Your task to perform on an android device: turn off translation in the chrome app Image 0: 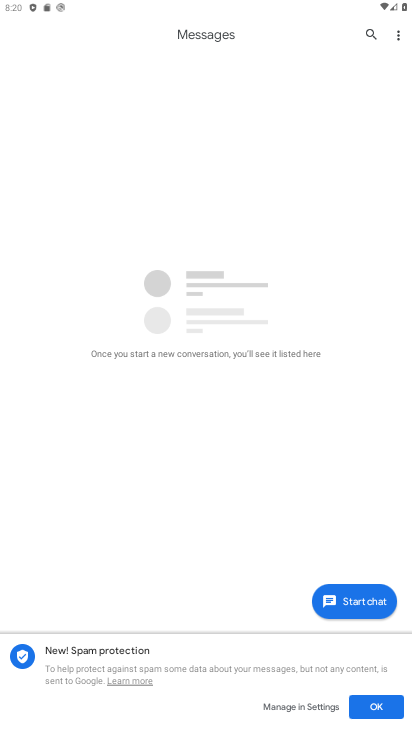
Step 0: press home button
Your task to perform on an android device: turn off translation in the chrome app Image 1: 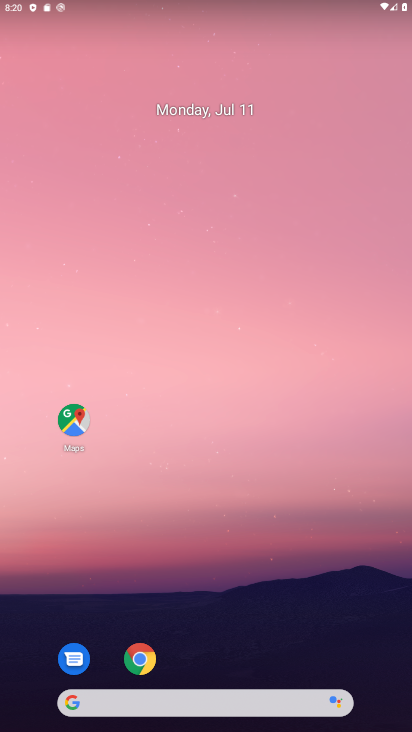
Step 1: click (152, 655)
Your task to perform on an android device: turn off translation in the chrome app Image 2: 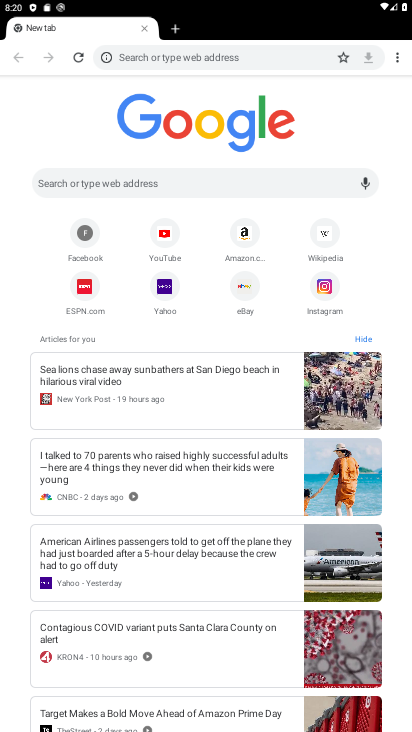
Step 2: click (402, 59)
Your task to perform on an android device: turn off translation in the chrome app Image 3: 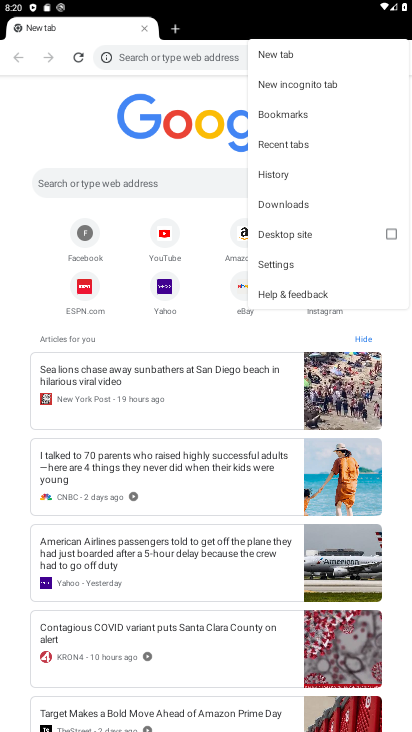
Step 3: click (285, 273)
Your task to perform on an android device: turn off translation in the chrome app Image 4: 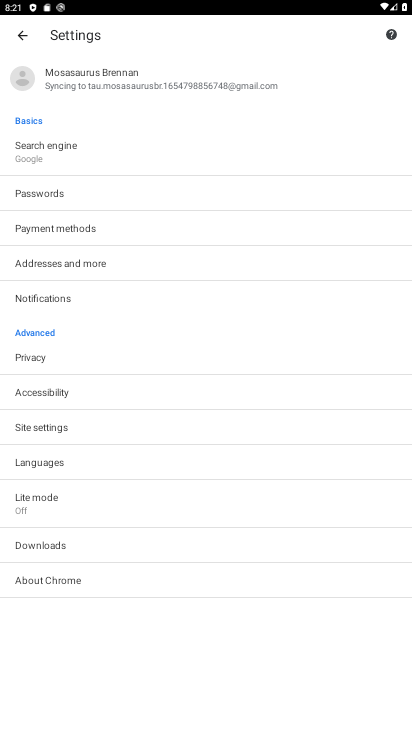
Step 4: click (91, 468)
Your task to perform on an android device: turn off translation in the chrome app Image 5: 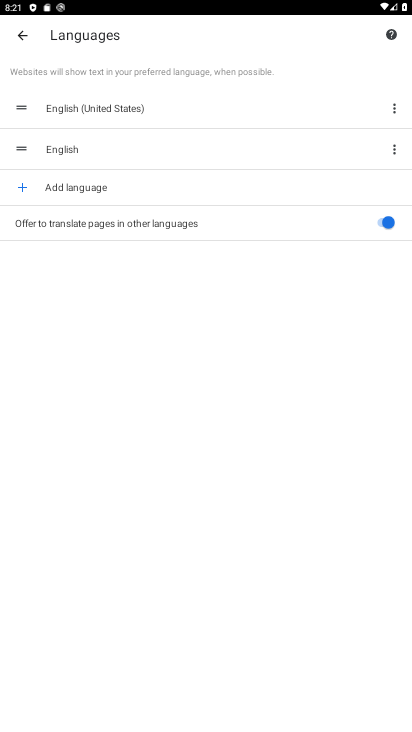
Step 5: click (377, 227)
Your task to perform on an android device: turn off translation in the chrome app Image 6: 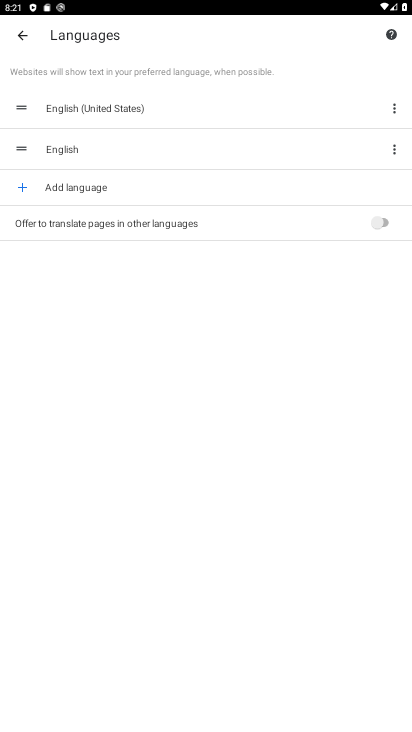
Step 6: task complete